Your task to perform on an android device: create a new album in the google photos Image 0: 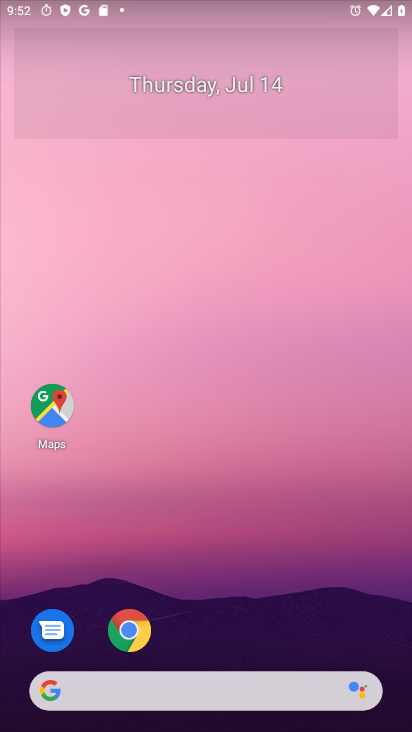
Step 0: drag from (26, 683) to (171, 207)
Your task to perform on an android device: create a new album in the google photos Image 1: 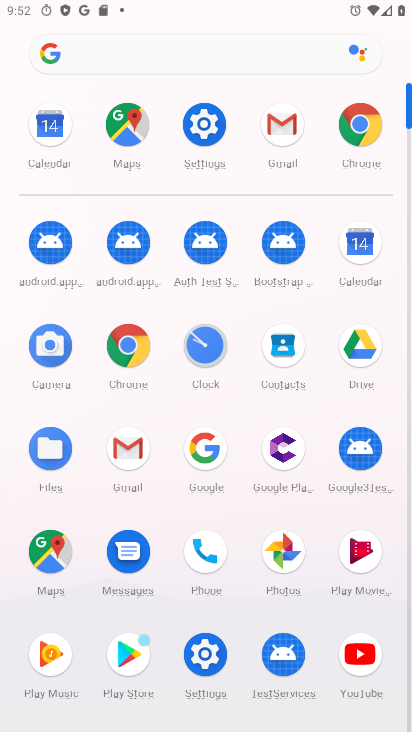
Step 1: click (296, 550)
Your task to perform on an android device: create a new album in the google photos Image 2: 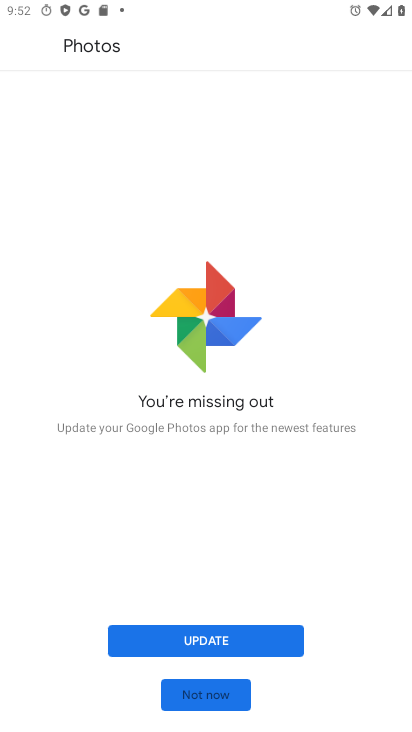
Step 2: click (182, 628)
Your task to perform on an android device: create a new album in the google photos Image 3: 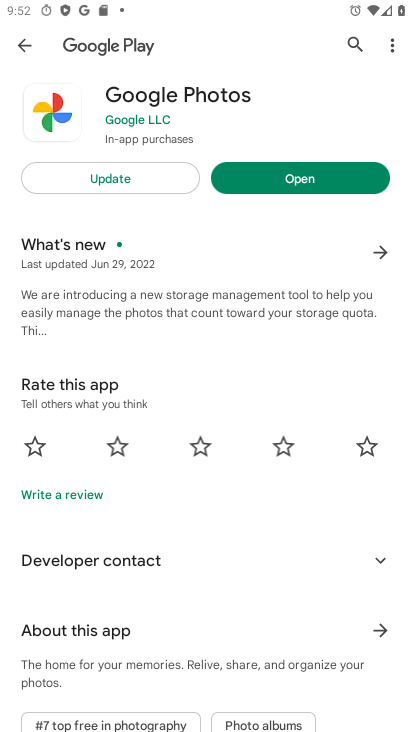
Step 3: click (293, 176)
Your task to perform on an android device: create a new album in the google photos Image 4: 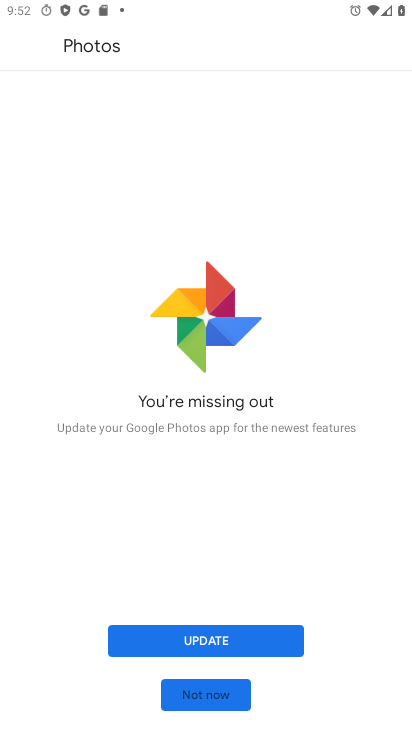
Step 4: task complete